Your task to perform on an android device: change the clock display to show seconds Image 0: 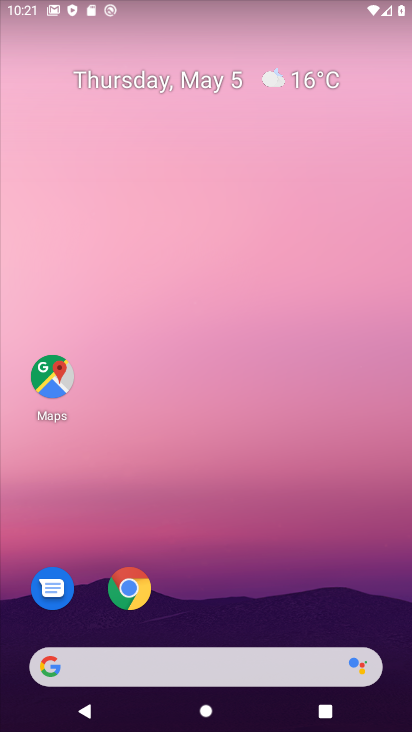
Step 0: drag from (219, 359) to (226, 129)
Your task to perform on an android device: change the clock display to show seconds Image 1: 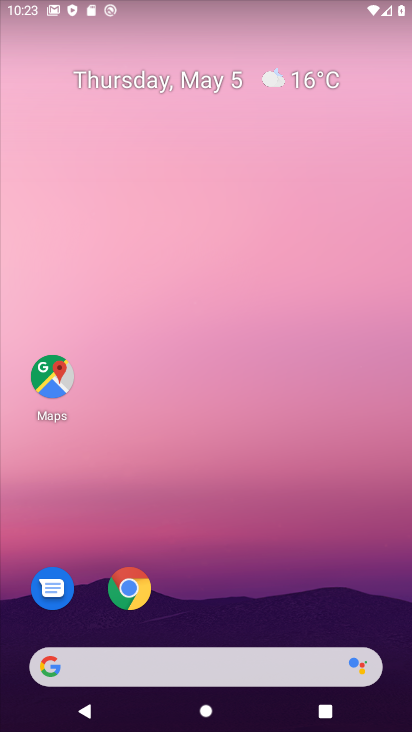
Step 1: drag from (177, 573) to (155, 30)
Your task to perform on an android device: change the clock display to show seconds Image 2: 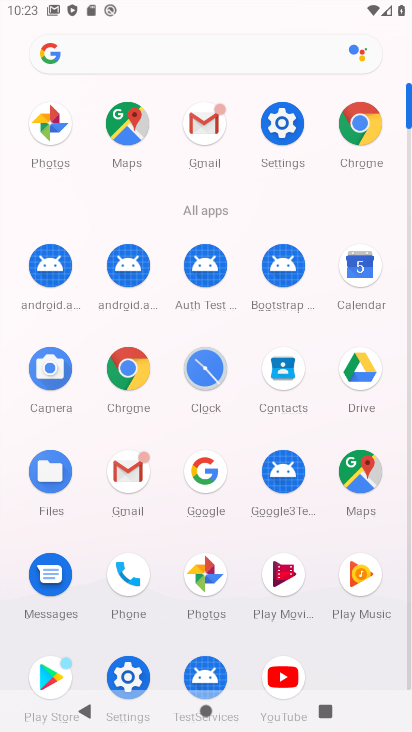
Step 2: click (206, 364)
Your task to perform on an android device: change the clock display to show seconds Image 3: 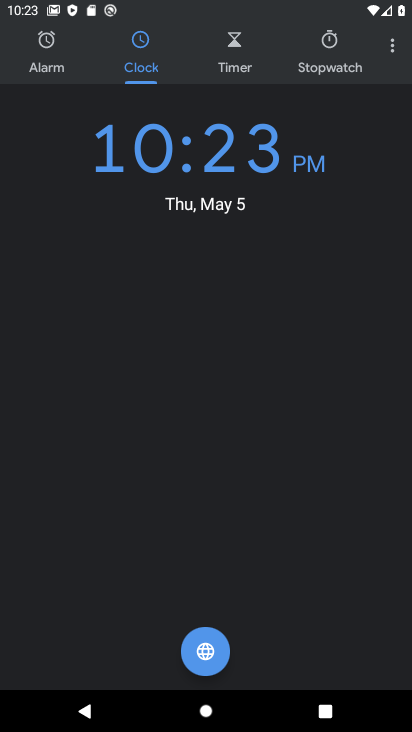
Step 3: click (398, 54)
Your task to perform on an android device: change the clock display to show seconds Image 4: 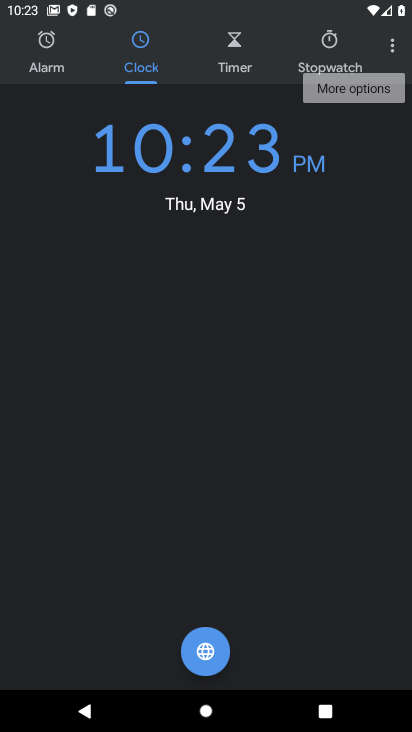
Step 4: click (398, 54)
Your task to perform on an android device: change the clock display to show seconds Image 5: 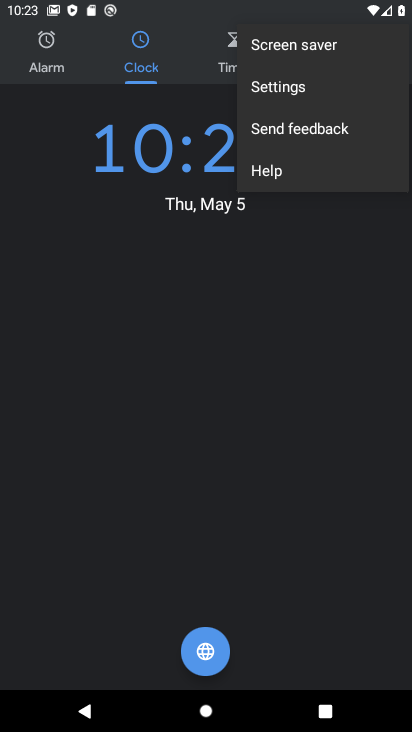
Step 5: click (295, 101)
Your task to perform on an android device: change the clock display to show seconds Image 6: 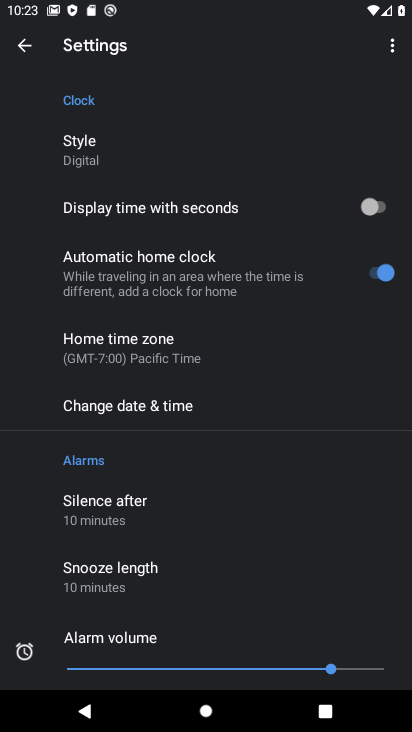
Step 6: drag from (223, 392) to (212, 216)
Your task to perform on an android device: change the clock display to show seconds Image 7: 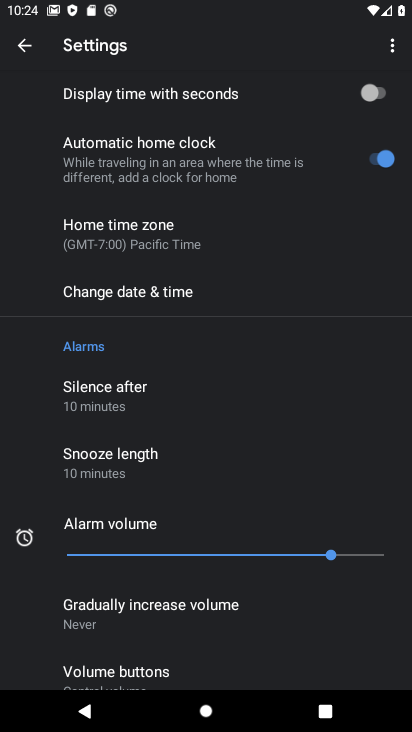
Step 7: drag from (204, 220) to (198, 726)
Your task to perform on an android device: change the clock display to show seconds Image 8: 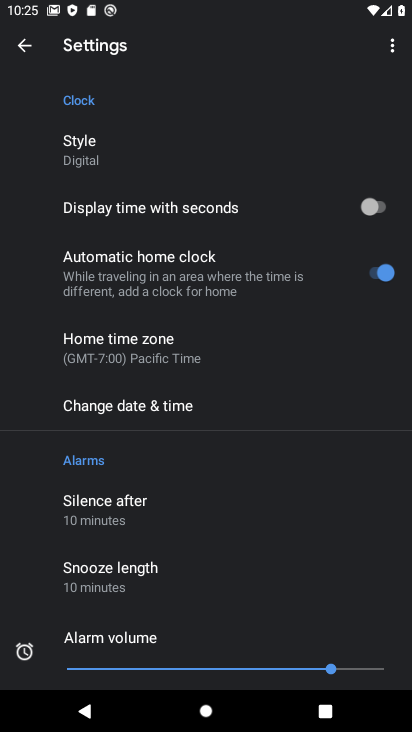
Step 8: click (157, 140)
Your task to perform on an android device: change the clock display to show seconds Image 9: 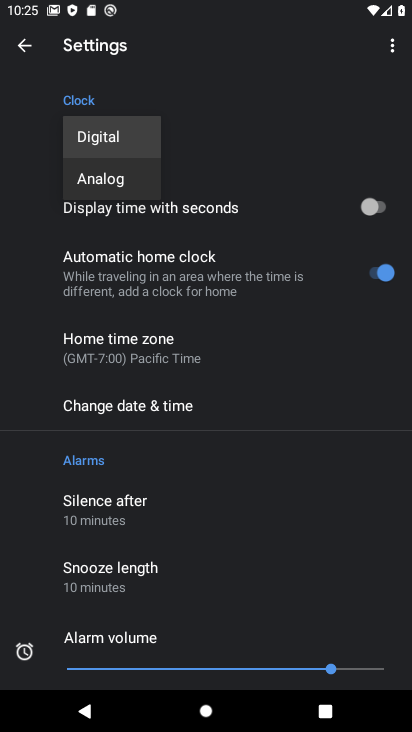
Step 9: click (213, 201)
Your task to perform on an android device: change the clock display to show seconds Image 10: 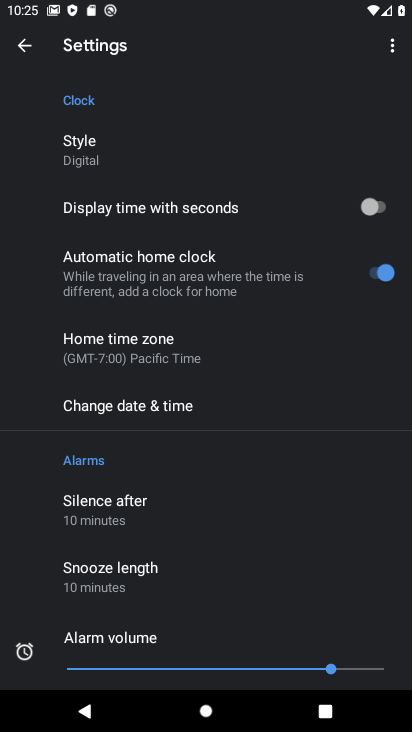
Step 10: click (213, 201)
Your task to perform on an android device: change the clock display to show seconds Image 11: 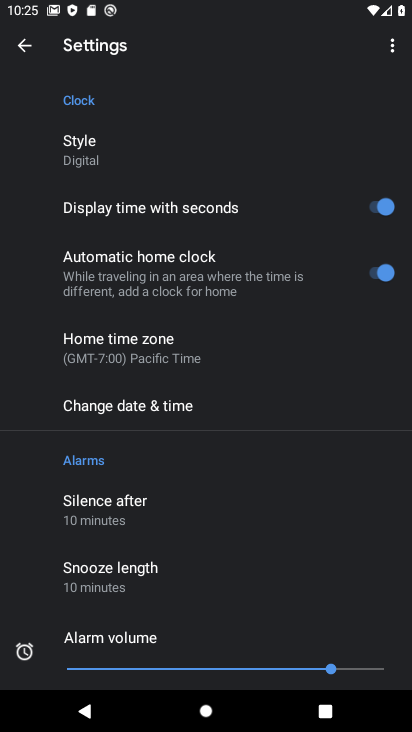
Step 11: task complete